Your task to perform on an android device: Add "apple airpods" to the cart on costco Image 0: 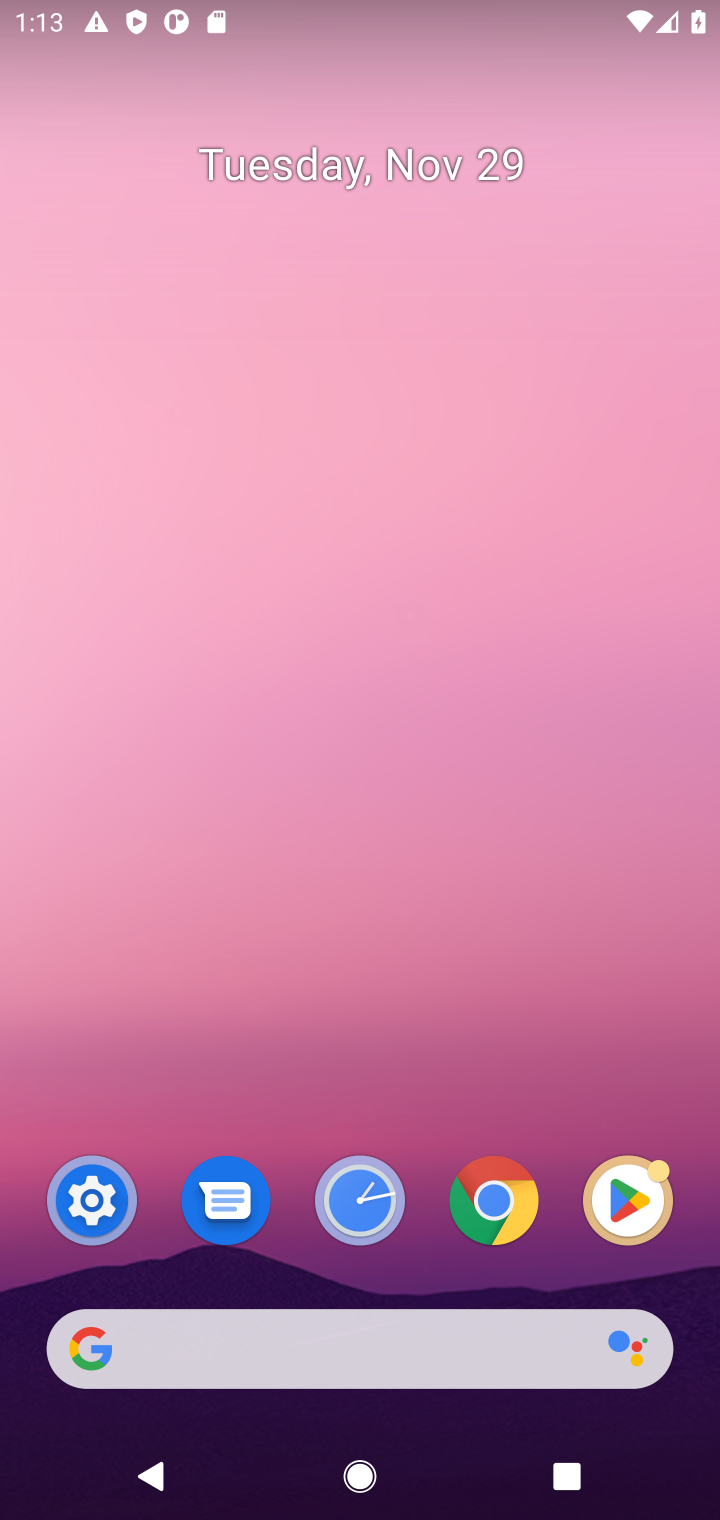
Step 0: click (526, 1375)
Your task to perform on an android device: Add "apple airpods" to the cart on costco Image 1: 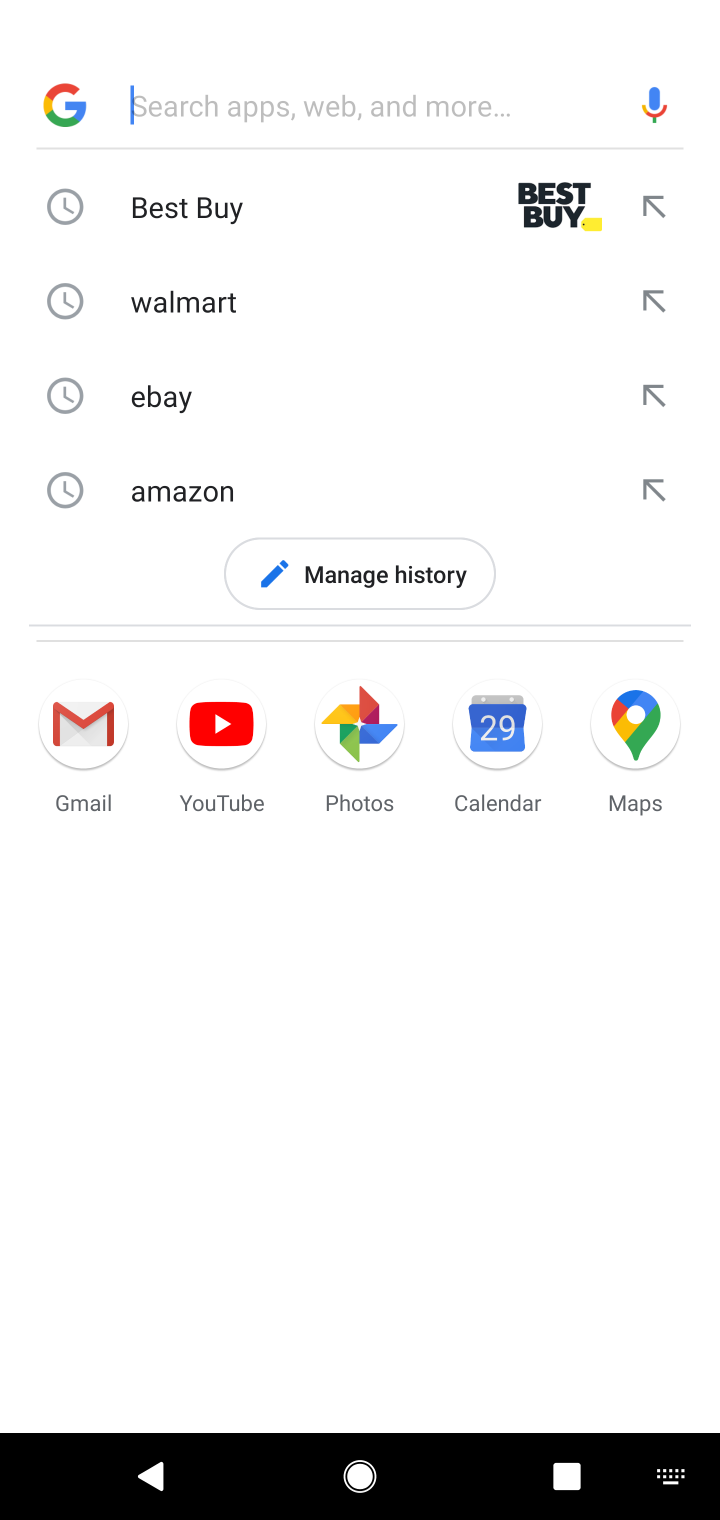
Step 1: type "costco.com"
Your task to perform on an android device: Add "apple airpods" to the cart on costco Image 2: 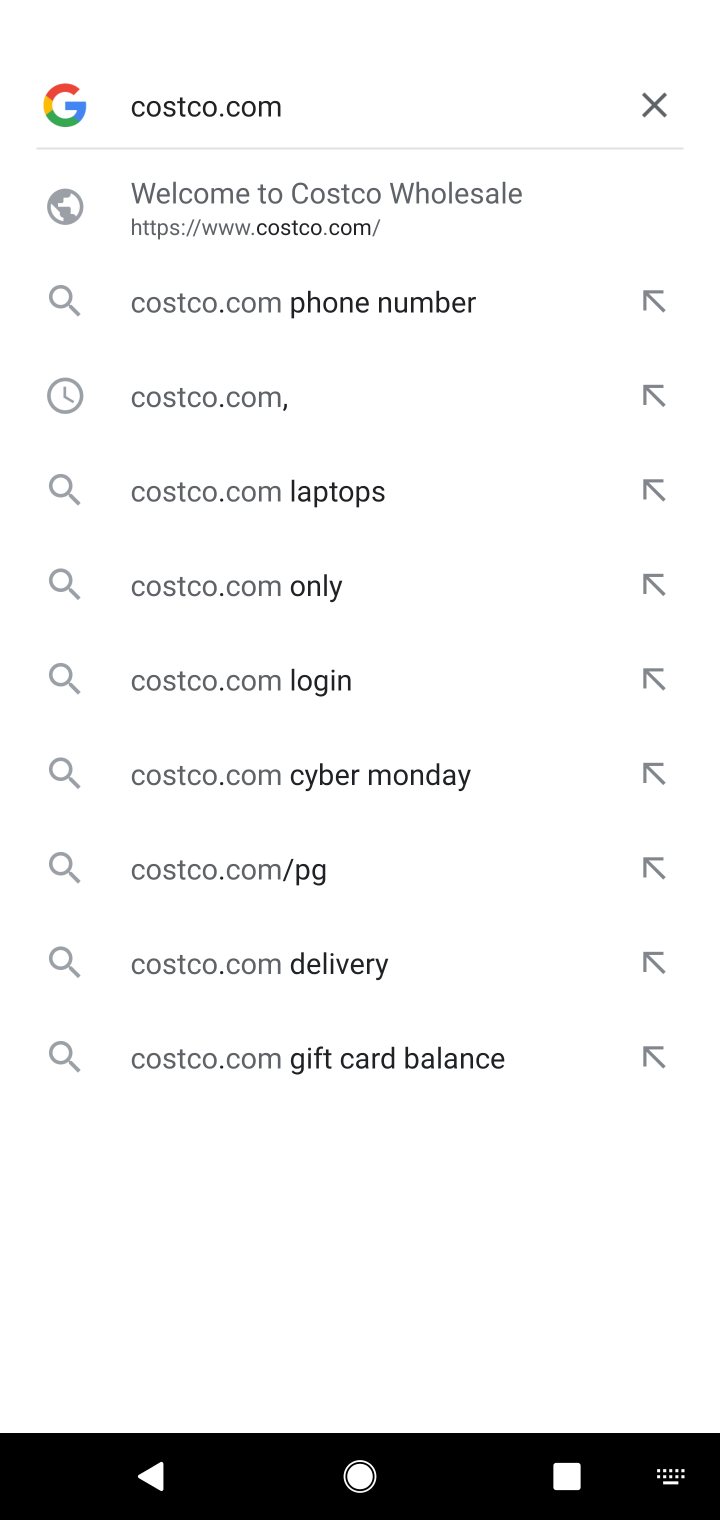
Step 2: click (229, 183)
Your task to perform on an android device: Add "apple airpods" to the cart on costco Image 3: 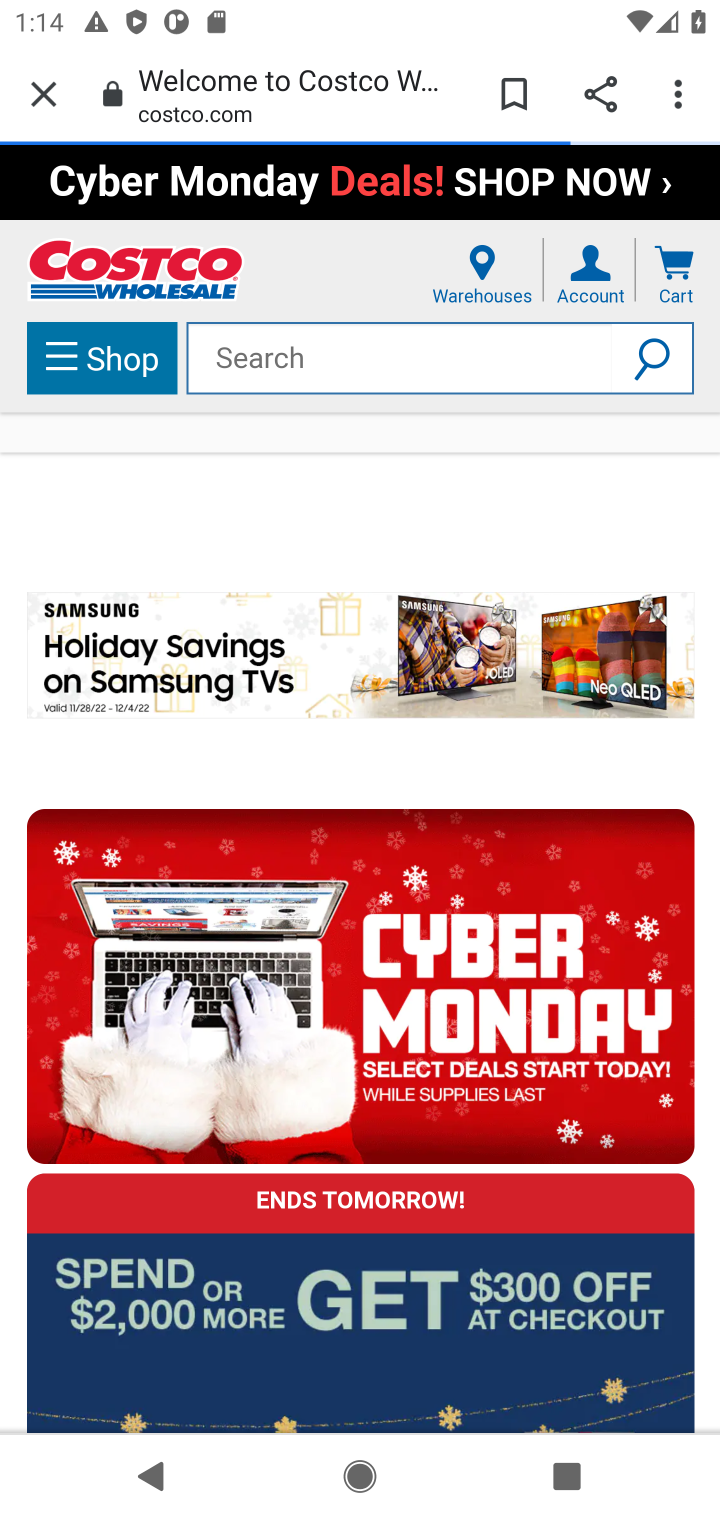
Step 3: click (279, 341)
Your task to perform on an android device: Add "apple airpods" to the cart on costco Image 4: 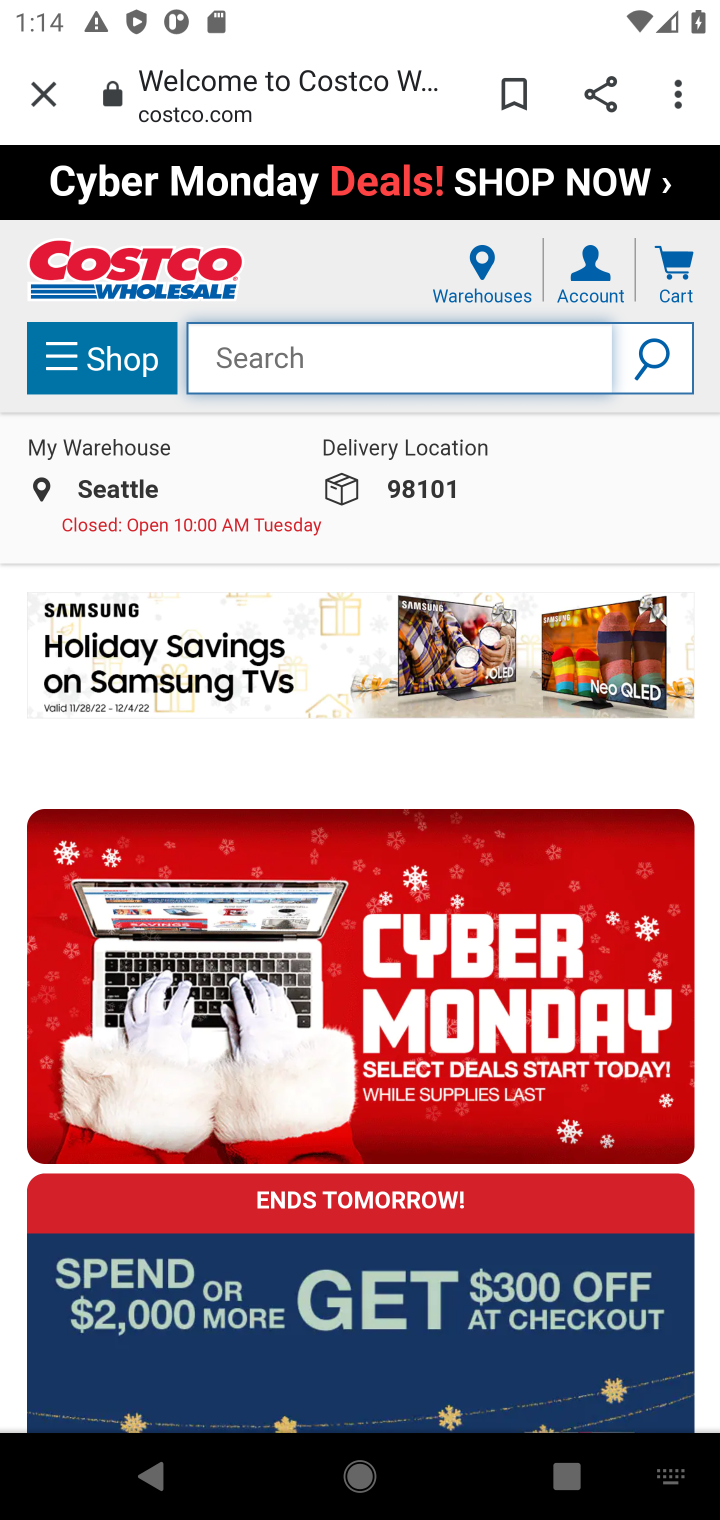
Step 4: type "apple airpod"
Your task to perform on an android device: Add "apple airpods" to the cart on costco Image 5: 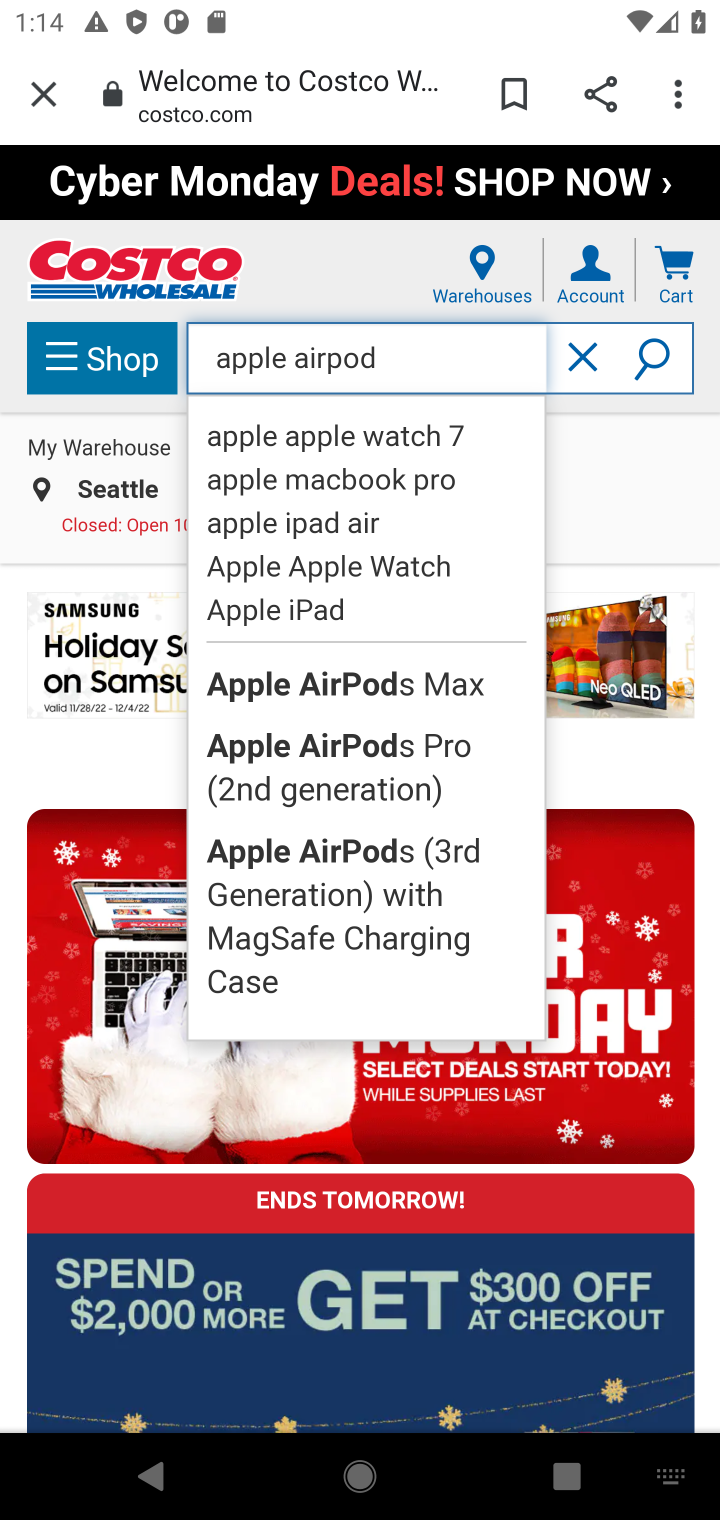
Step 5: click (641, 359)
Your task to perform on an android device: Add "apple airpods" to the cart on costco Image 6: 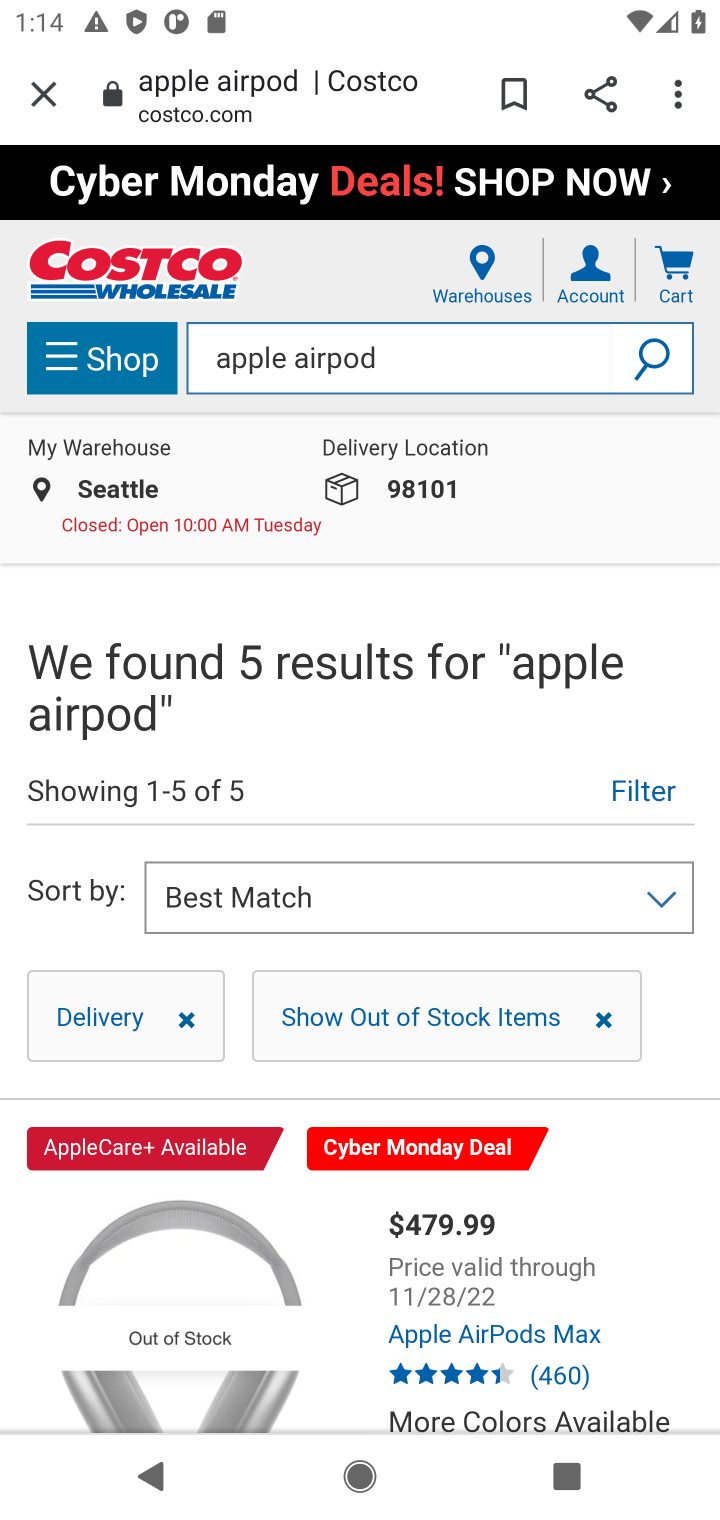
Step 6: task complete